Your task to perform on an android device: See recent photos Image 0: 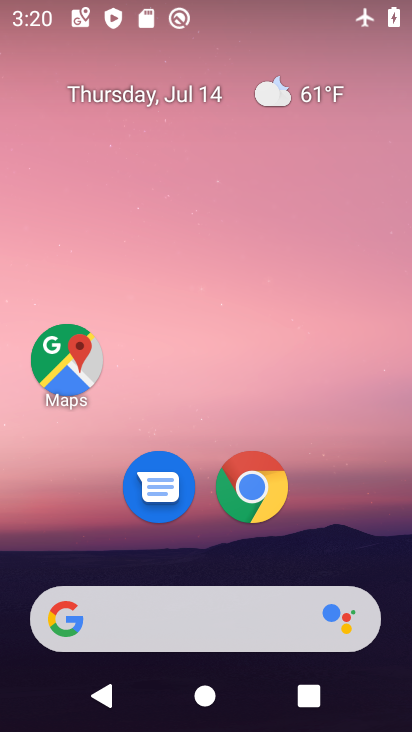
Step 0: drag from (202, 549) to (217, 106)
Your task to perform on an android device: See recent photos Image 1: 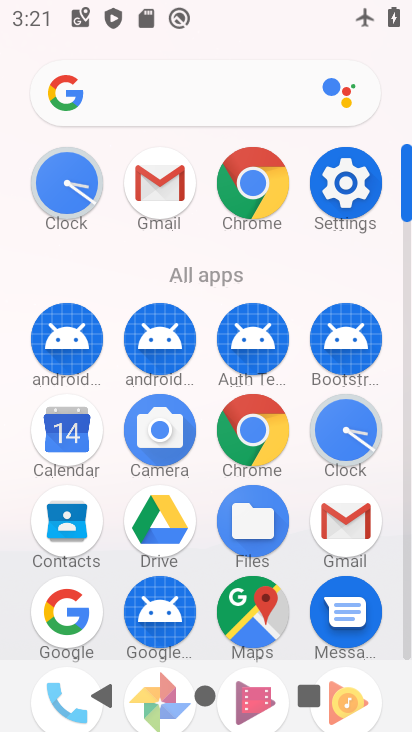
Step 1: drag from (186, 582) to (214, 255)
Your task to perform on an android device: See recent photos Image 2: 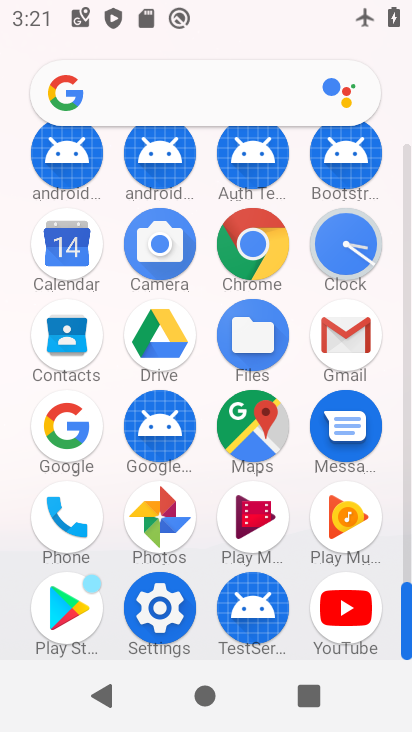
Step 2: click (169, 513)
Your task to perform on an android device: See recent photos Image 3: 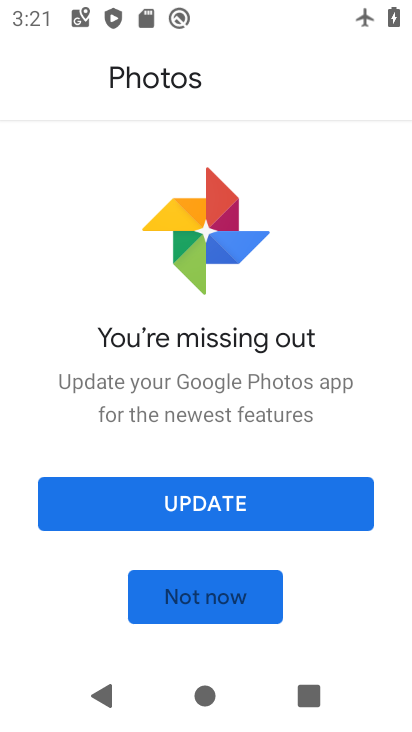
Step 3: click (293, 431)
Your task to perform on an android device: See recent photos Image 4: 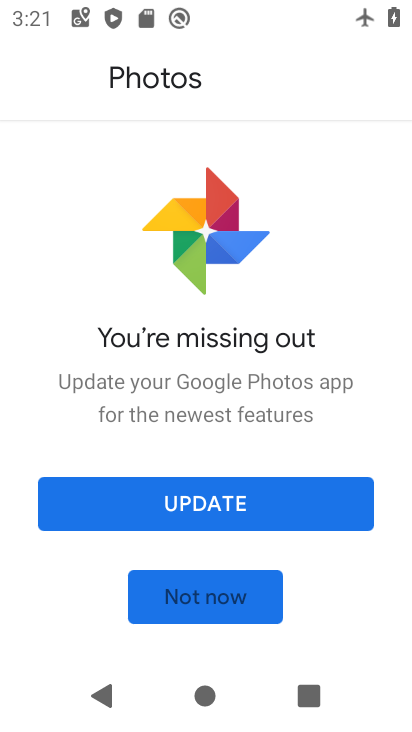
Step 4: click (190, 579)
Your task to perform on an android device: See recent photos Image 5: 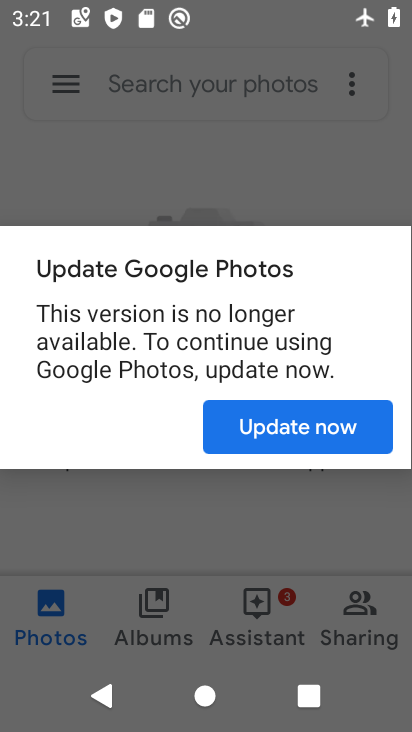
Step 5: click (281, 428)
Your task to perform on an android device: See recent photos Image 6: 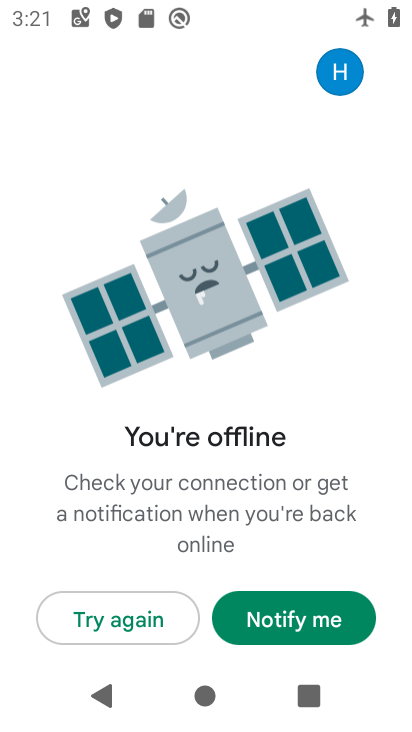
Step 6: click (145, 615)
Your task to perform on an android device: See recent photos Image 7: 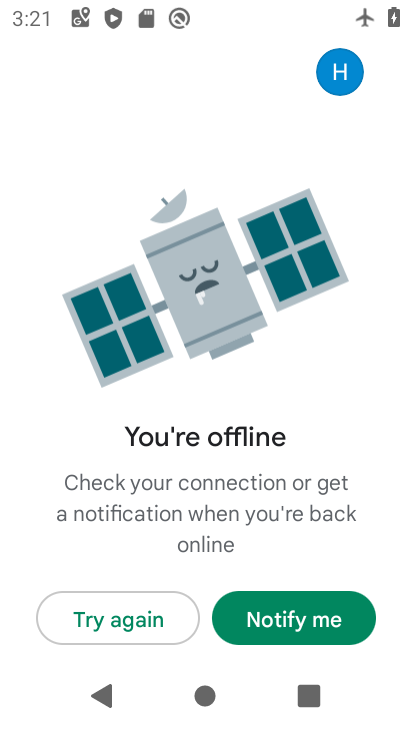
Step 7: click (114, 604)
Your task to perform on an android device: See recent photos Image 8: 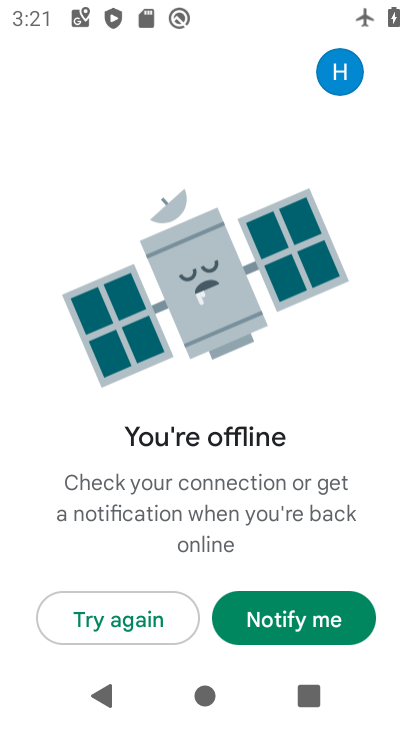
Step 8: task complete